Your task to perform on an android device: Install the Amazon app Image 0: 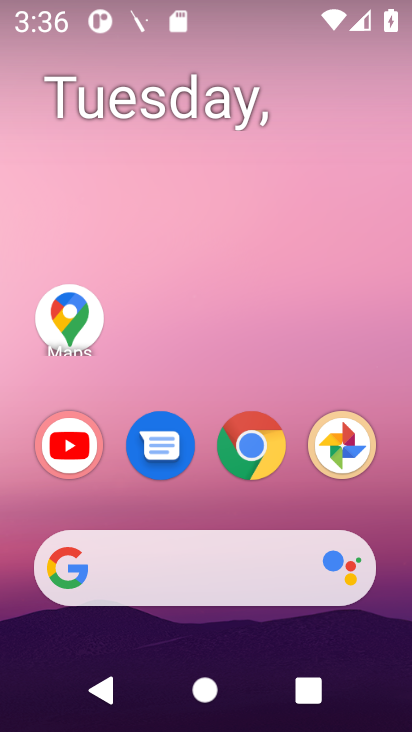
Step 0: drag from (195, 533) to (232, 148)
Your task to perform on an android device: Install the Amazon app Image 1: 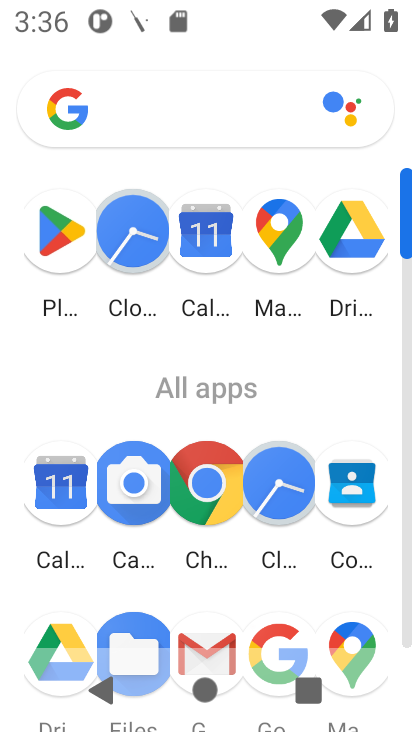
Step 1: drag from (219, 573) to (253, 203)
Your task to perform on an android device: Install the Amazon app Image 2: 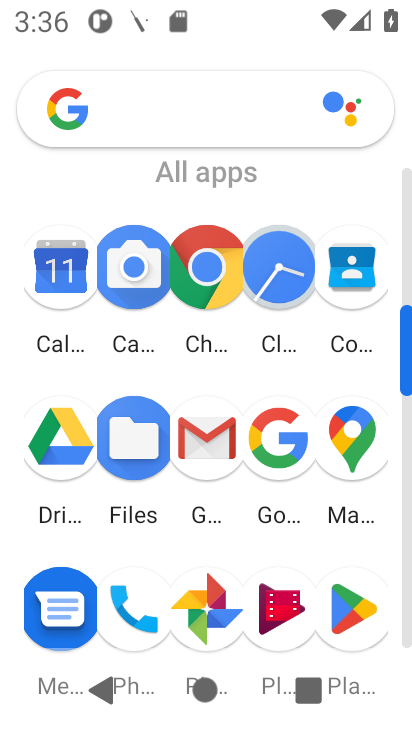
Step 2: click (353, 619)
Your task to perform on an android device: Install the Amazon app Image 3: 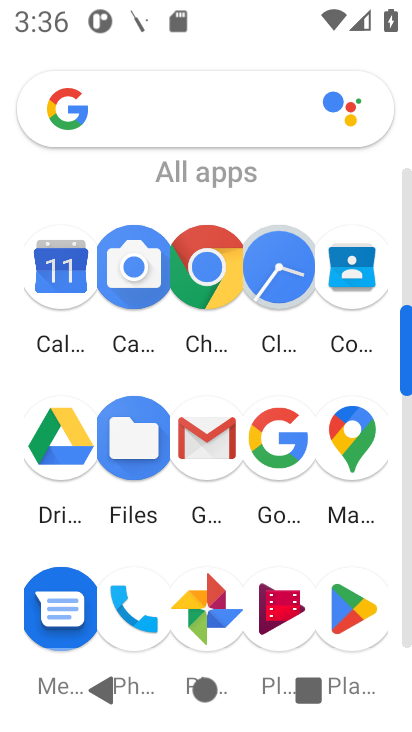
Step 3: click (338, 600)
Your task to perform on an android device: Install the Amazon app Image 4: 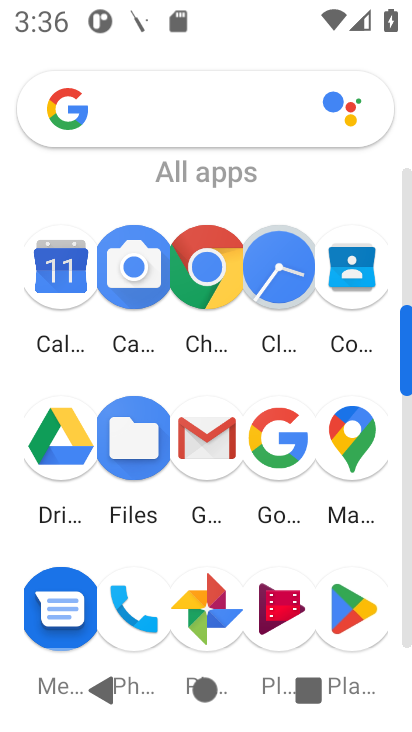
Step 4: task complete